Your task to perform on an android device: toggle improve location accuracy Image 0: 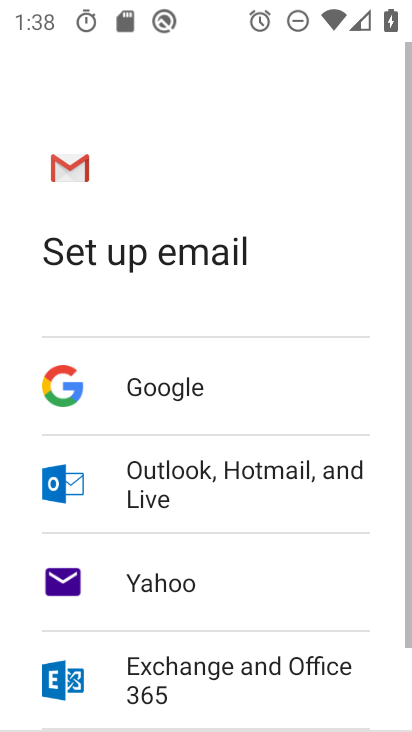
Step 0: press home button
Your task to perform on an android device: toggle improve location accuracy Image 1: 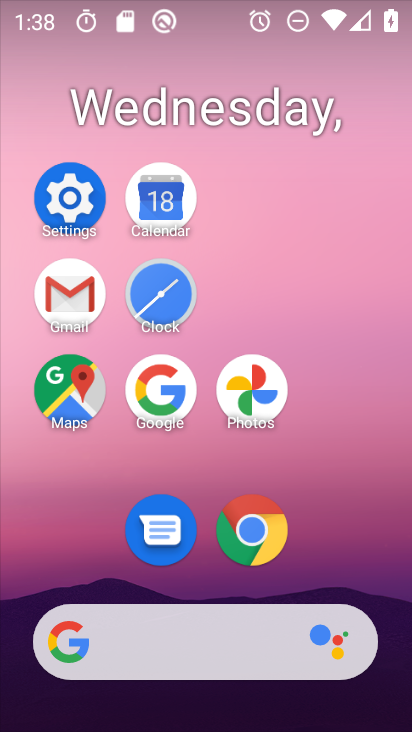
Step 1: click (83, 183)
Your task to perform on an android device: toggle improve location accuracy Image 2: 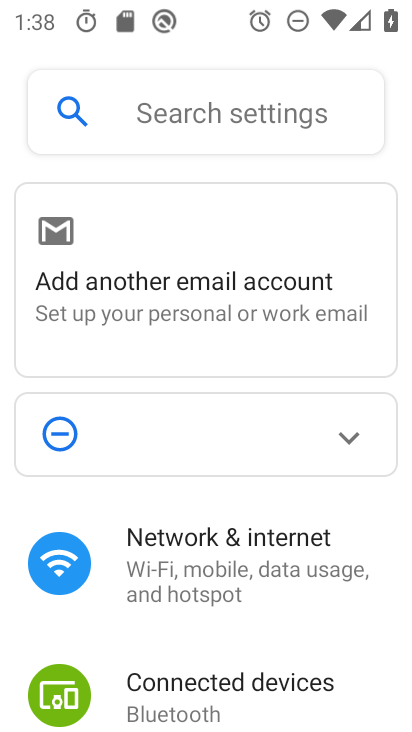
Step 2: drag from (218, 616) to (278, 118)
Your task to perform on an android device: toggle improve location accuracy Image 3: 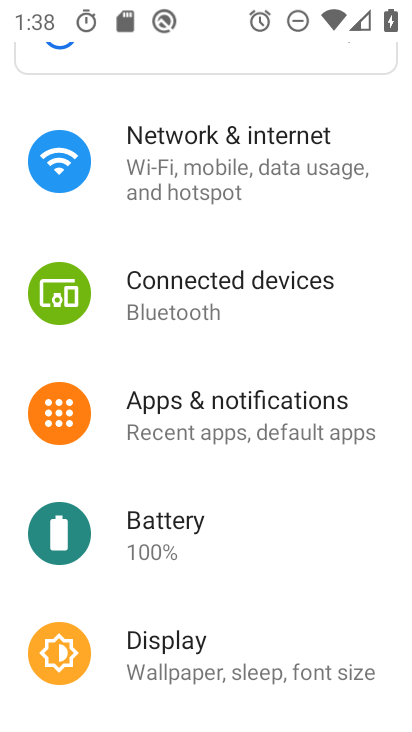
Step 3: drag from (295, 546) to (389, 18)
Your task to perform on an android device: toggle improve location accuracy Image 4: 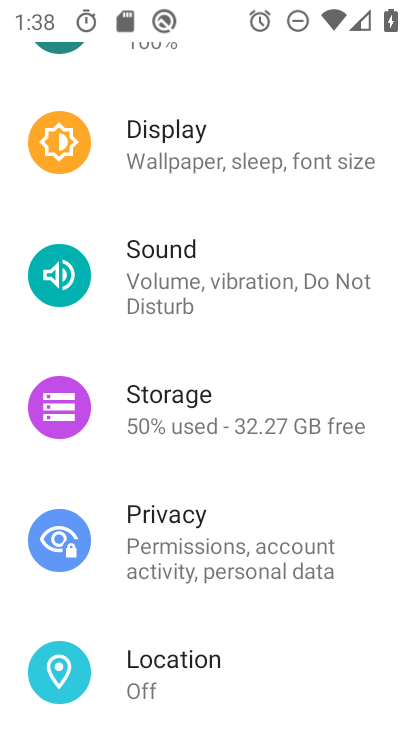
Step 4: drag from (243, 559) to (273, 79)
Your task to perform on an android device: toggle improve location accuracy Image 5: 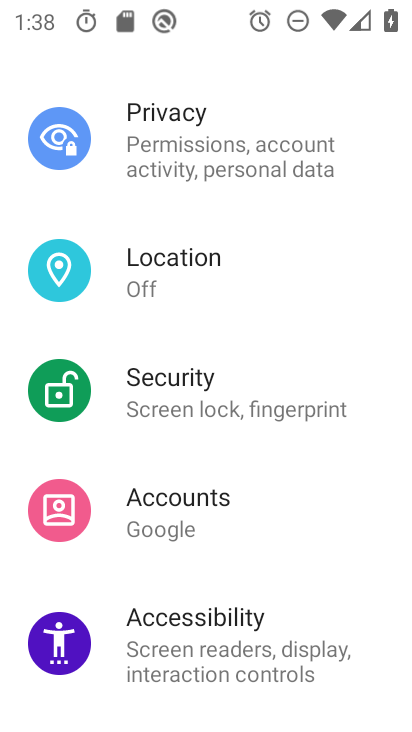
Step 5: click (254, 252)
Your task to perform on an android device: toggle improve location accuracy Image 6: 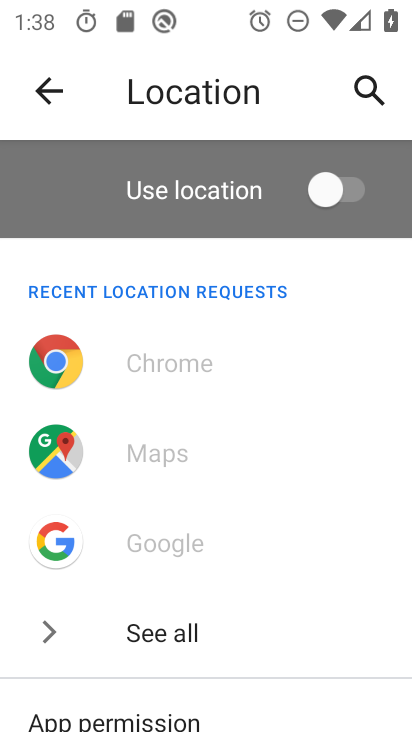
Step 6: drag from (218, 545) to (294, 184)
Your task to perform on an android device: toggle improve location accuracy Image 7: 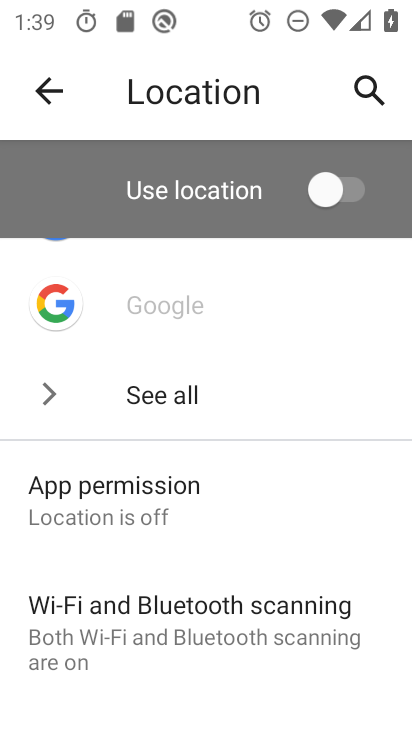
Step 7: drag from (155, 607) to (235, 258)
Your task to perform on an android device: toggle improve location accuracy Image 8: 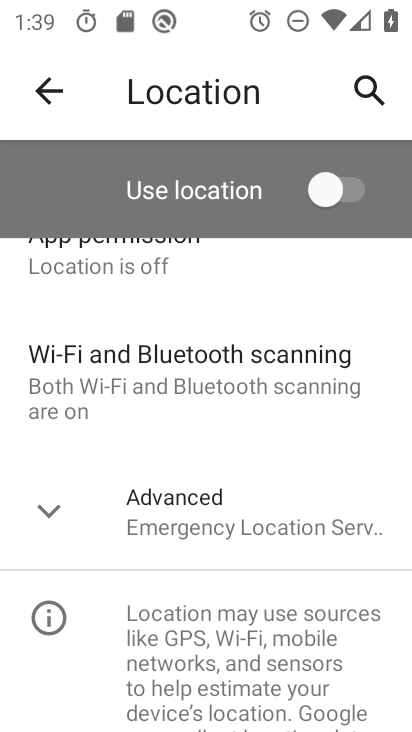
Step 8: click (185, 501)
Your task to perform on an android device: toggle improve location accuracy Image 9: 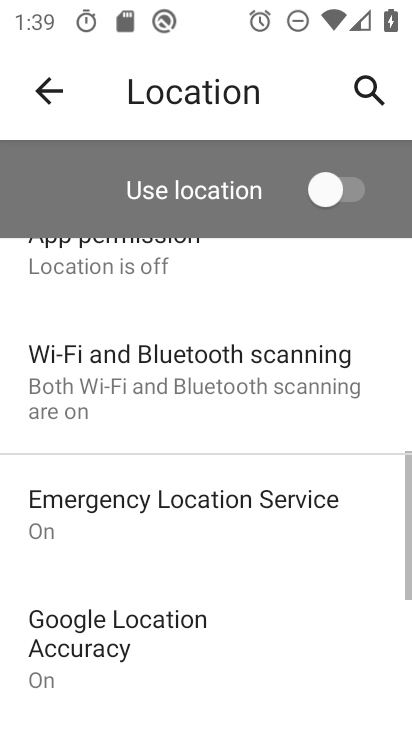
Step 9: drag from (220, 629) to (283, 227)
Your task to perform on an android device: toggle improve location accuracy Image 10: 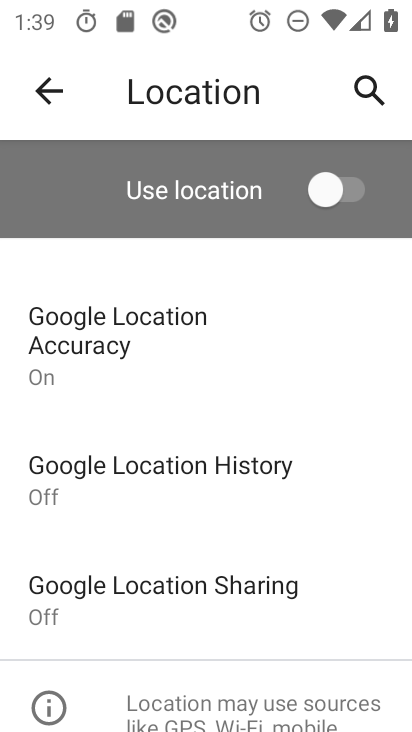
Step 10: click (203, 350)
Your task to perform on an android device: toggle improve location accuracy Image 11: 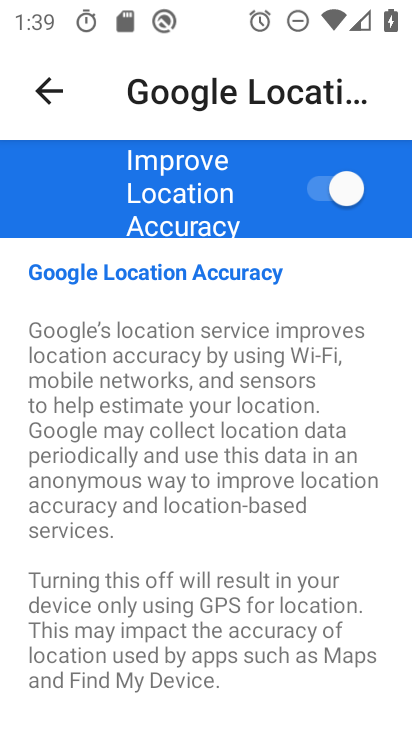
Step 11: click (330, 199)
Your task to perform on an android device: toggle improve location accuracy Image 12: 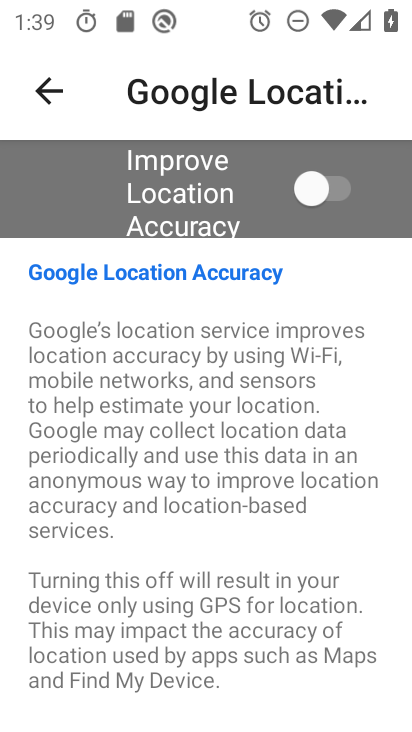
Step 12: task complete